Your task to perform on an android device: Is it going to rain this weekend? Image 0: 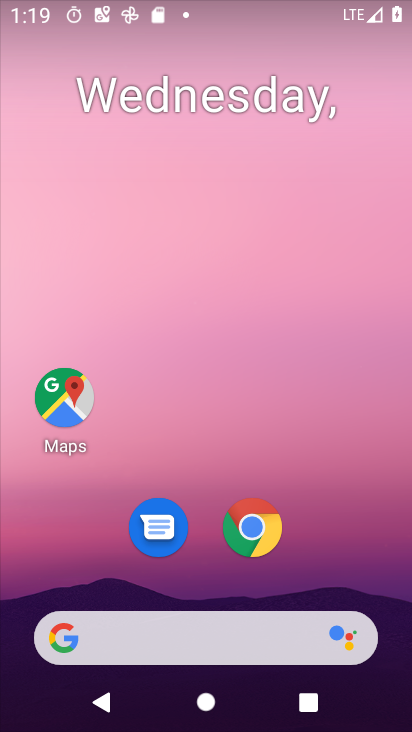
Step 0: drag from (23, 280) to (404, 295)
Your task to perform on an android device: Is it going to rain this weekend? Image 1: 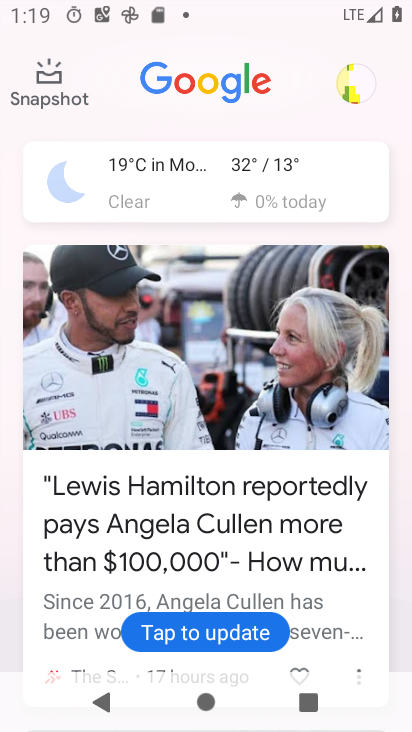
Step 1: click (227, 190)
Your task to perform on an android device: Is it going to rain this weekend? Image 2: 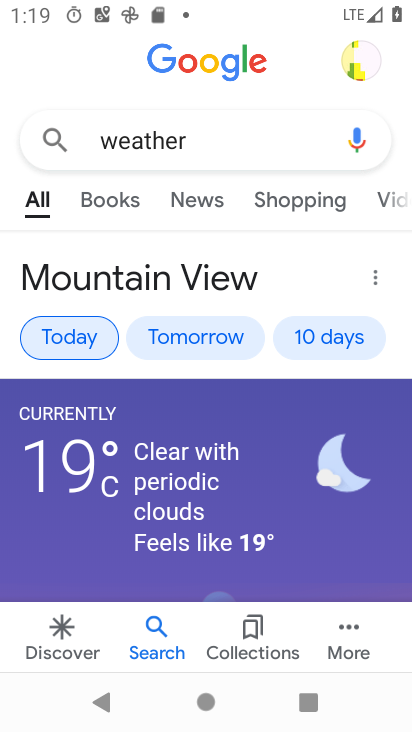
Step 2: task complete